Your task to perform on an android device: uninstall "Chime – Mobile Banking" Image 0: 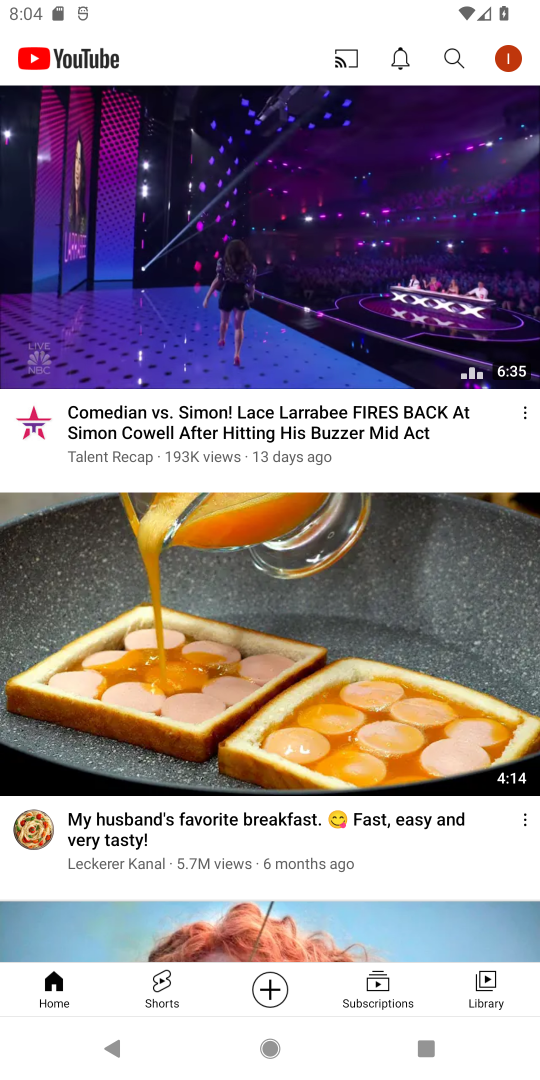
Step 0: press home button
Your task to perform on an android device: uninstall "Chime – Mobile Banking" Image 1: 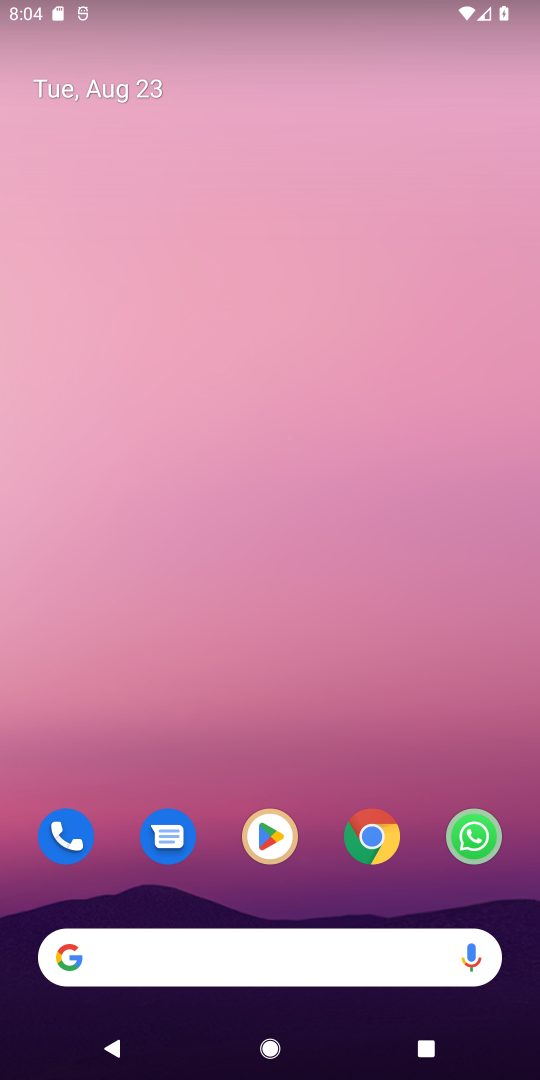
Step 1: click (260, 833)
Your task to perform on an android device: uninstall "Chime – Mobile Banking" Image 2: 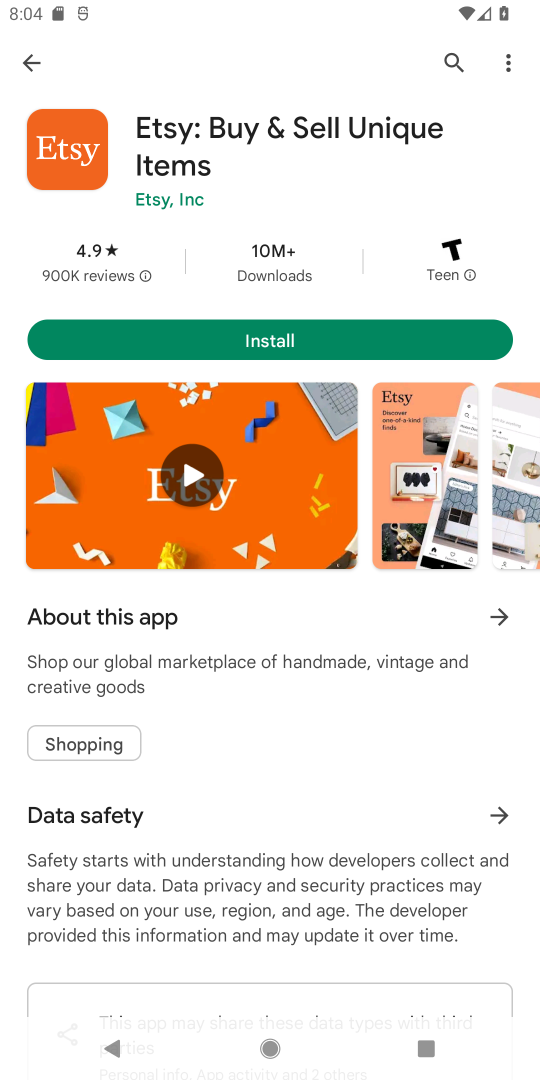
Step 2: click (450, 56)
Your task to perform on an android device: uninstall "Chime – Mobile Banking" Image 3: 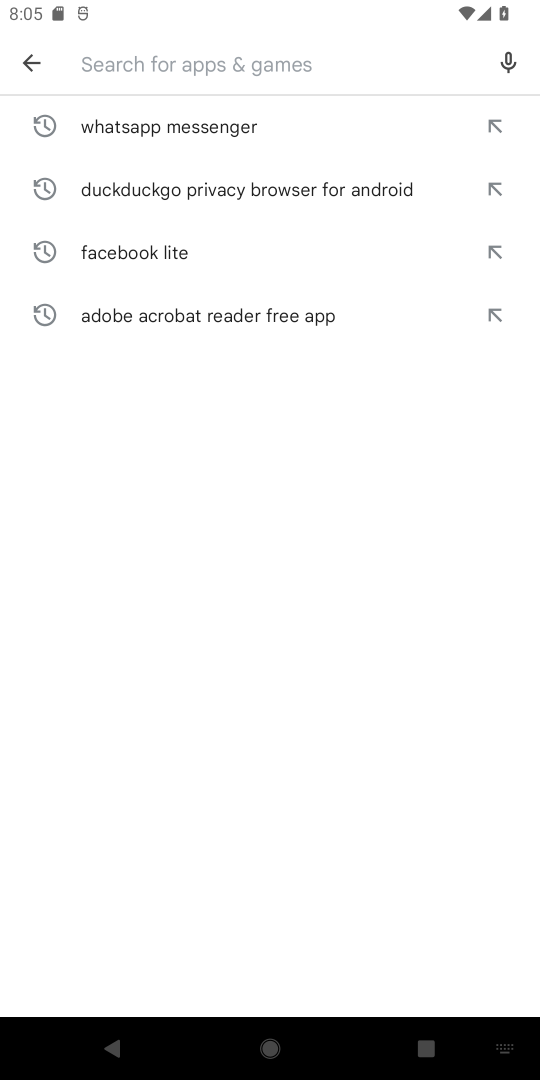
Step 3: type "Chime Mobile Banking"
Your task to perform on an android device: uninstall "Chime – Mobile Banking" Image 4: 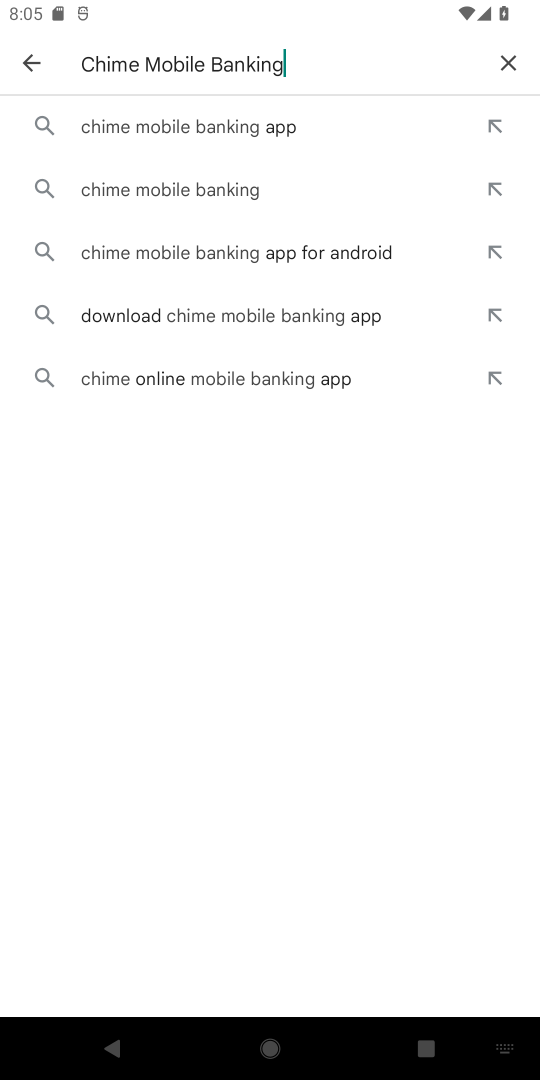
Step 4: click (178, 127)
Your task to perform on an android device: uninstall "Chime – Mobile Banking" Image 5: 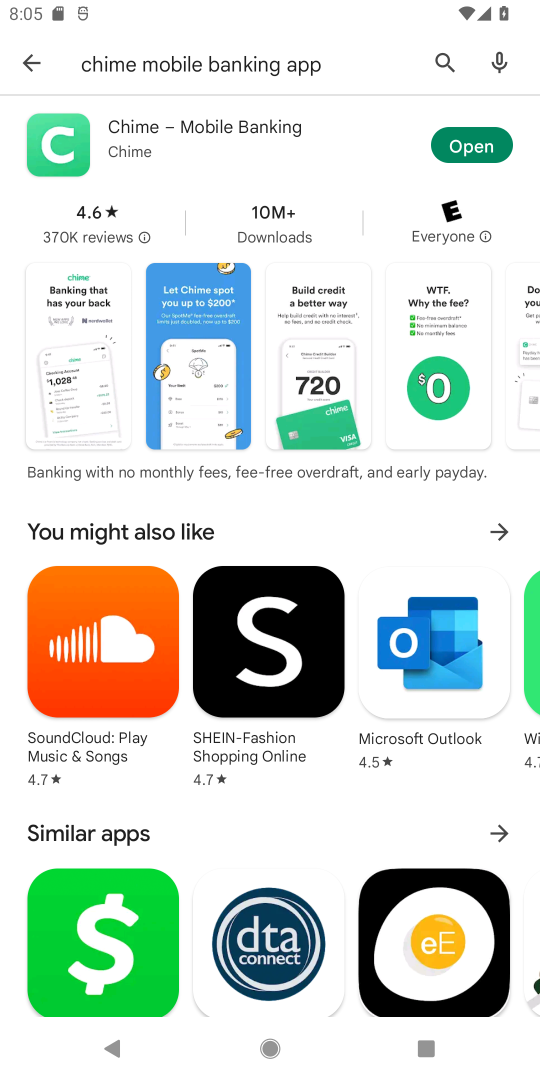
Step 5: click (118, 115)
Your task to perform on an android device: uninstall "Chime – Mobile Banking" Image 6: 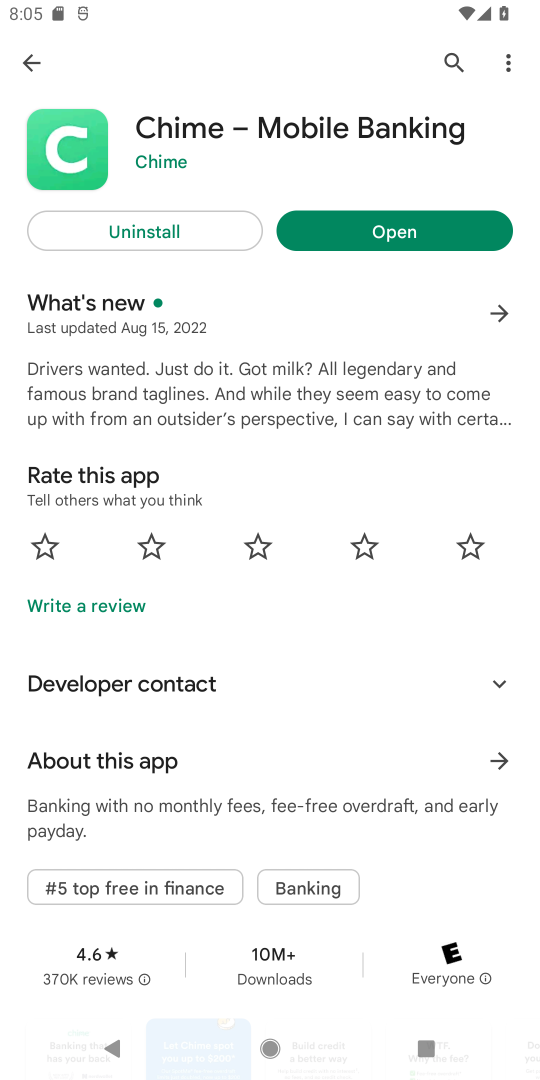
Step 6: click (175, 231)
Your task to perform on an android device: uninstall "Chime – Mobile Banking" Image 7: 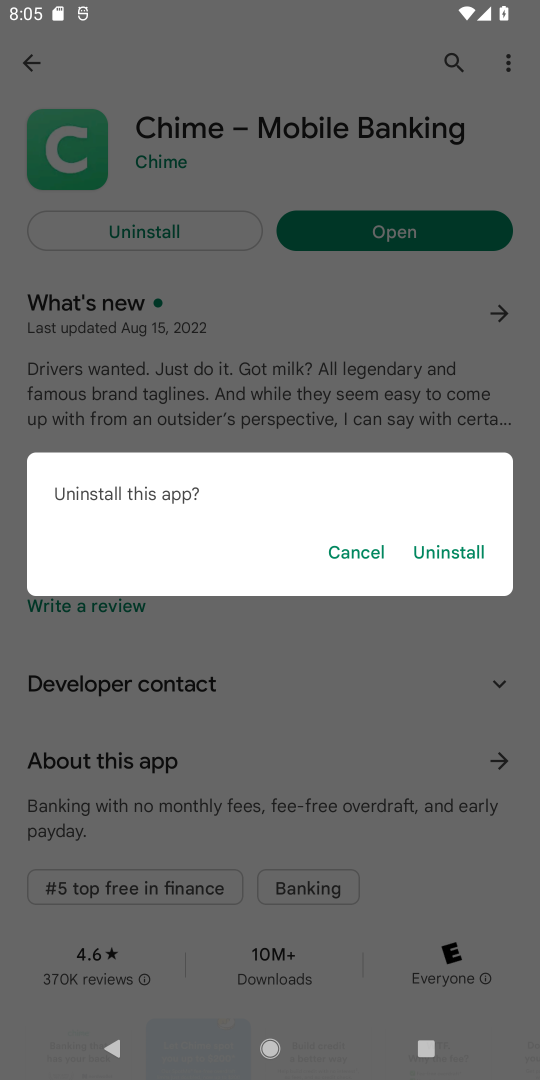
Step 7: click (443, 552)
Your task to perform on an android device: uninstall "Chime – Mobile Banking" Image 8: 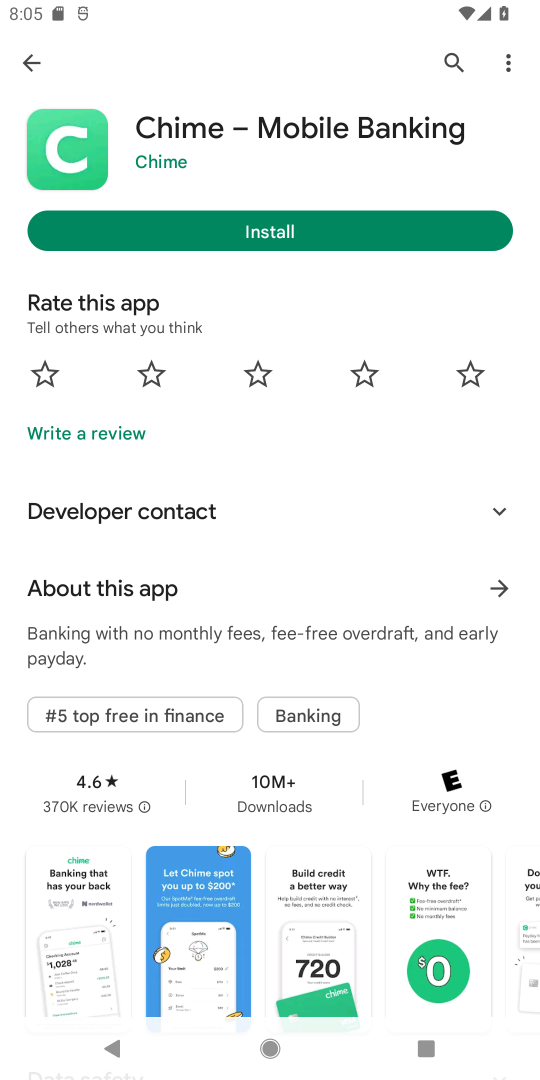
Step 8: task complete